Your task to perform on an android device: change your default location settings in chrome Image 0: 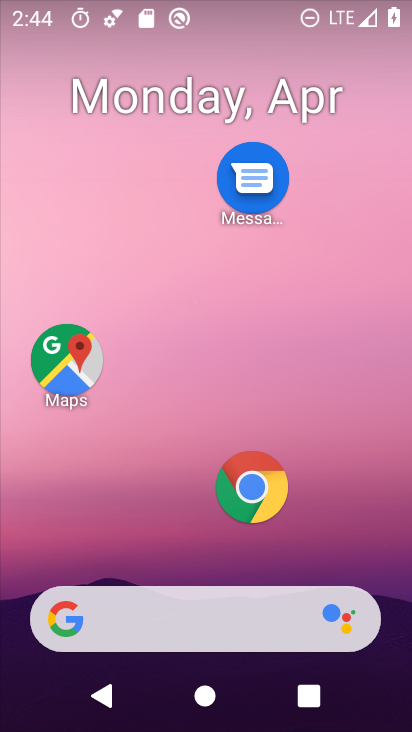
Step 0: drag from (258, 495) to (238, 23)
Your task to perform on an android device: change your default location settings in chrome Image 1: 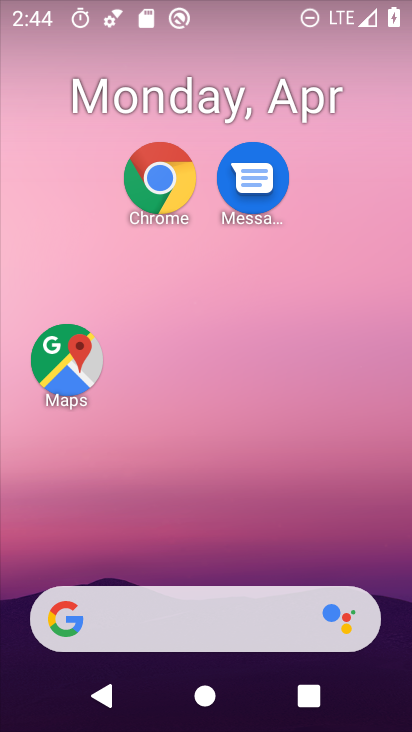
Step 1: drag from (311, 562) to (337, 31)
Your task to perform on an android device: change your default location settings in chrome Image 2: 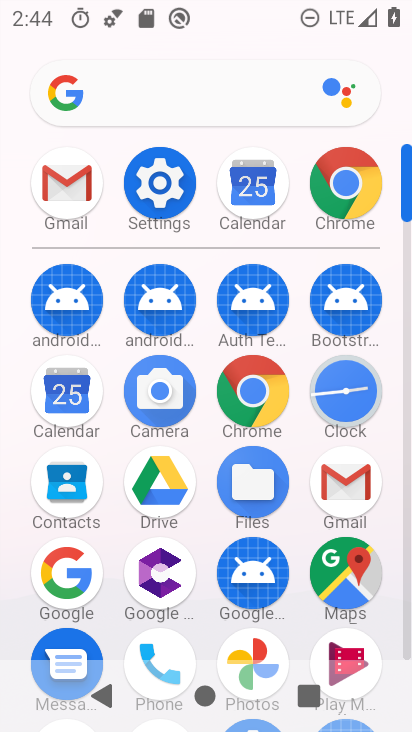
Step 2: click (250, 388)
Your task to perform on an android device: change your default location settings in chrome Image 3: 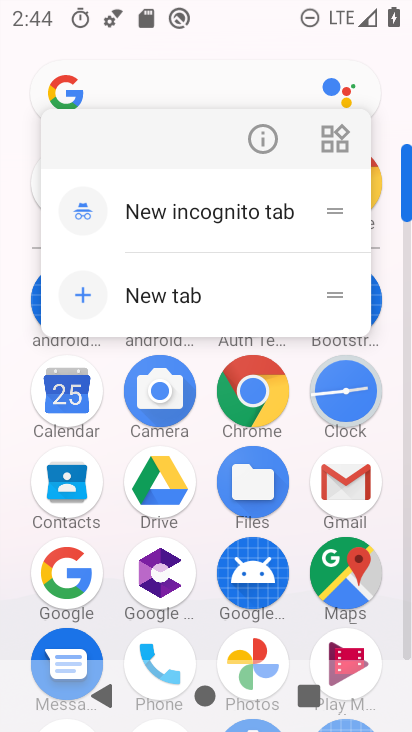
Step 3: click (248, 407)
Your task to perform on an android device: change your default location settings in chrome Image 4: 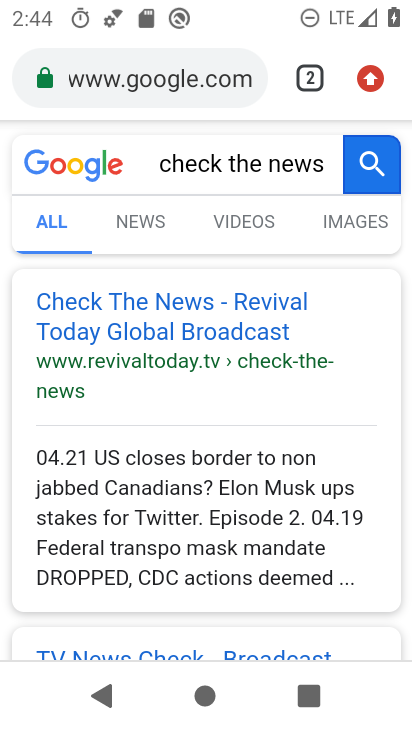
Step 4: drag from (378, 82) to (187, 553)
Your task to perform on an android device: change your default location settings in chrome Image 5: 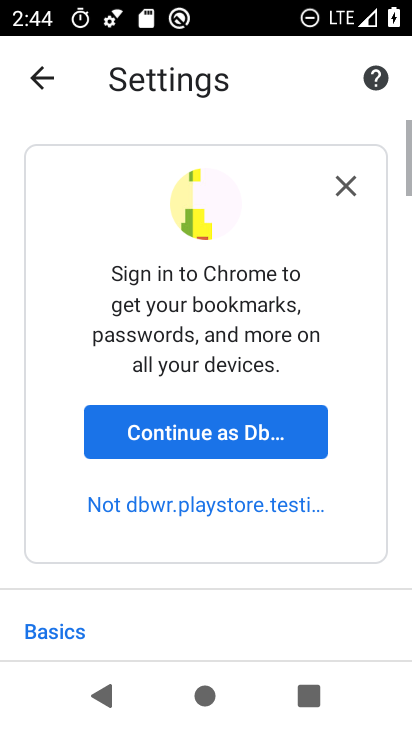
Step 5: drag from (185, 627) to (210, 129)
Your task to perform on an android device: change your default location settings in chrome Image 6: 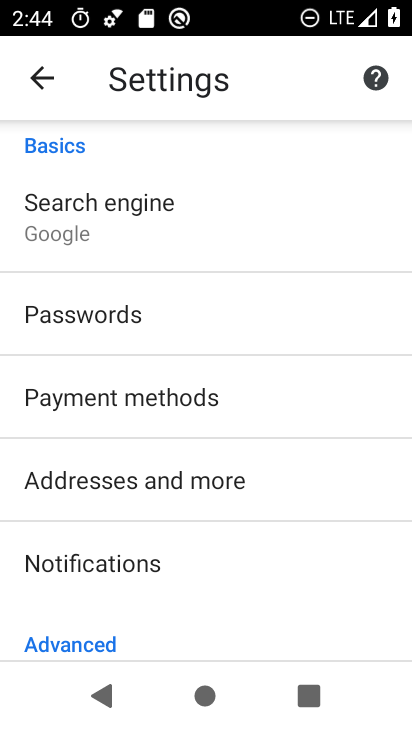
Step 6: drag from (207, 591) to (228, 190)
Your task to perform on an android device: change your default location settings in chrome Image 7: 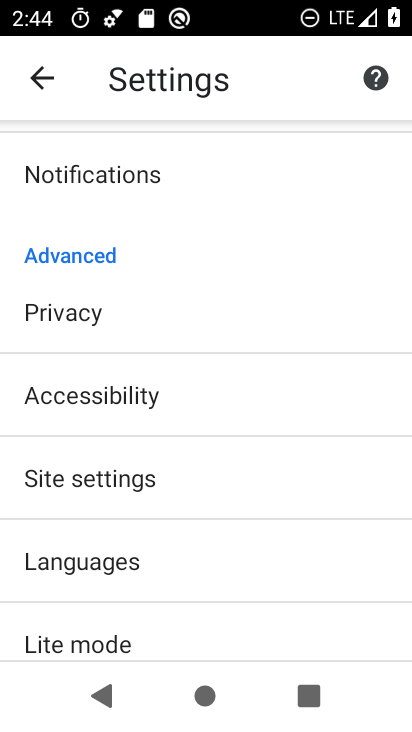
Step 7: click (143, 481)
Your task to perform on an android device: change your default location settings in chrome Image 8: 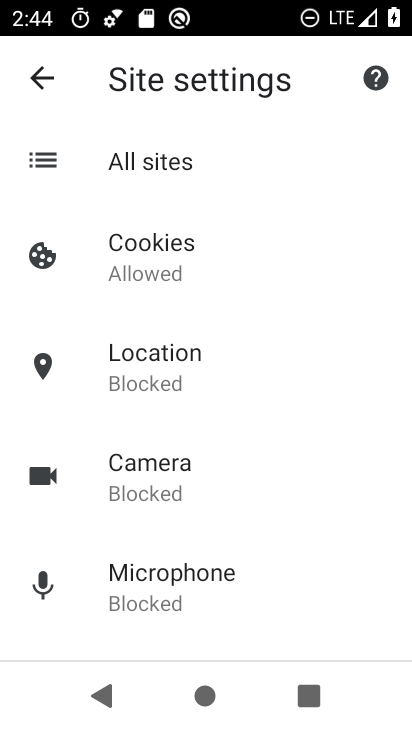
Step 8: click (179, 359)
Your task to perform on an android device: change your default location settings in chrome Image 9: 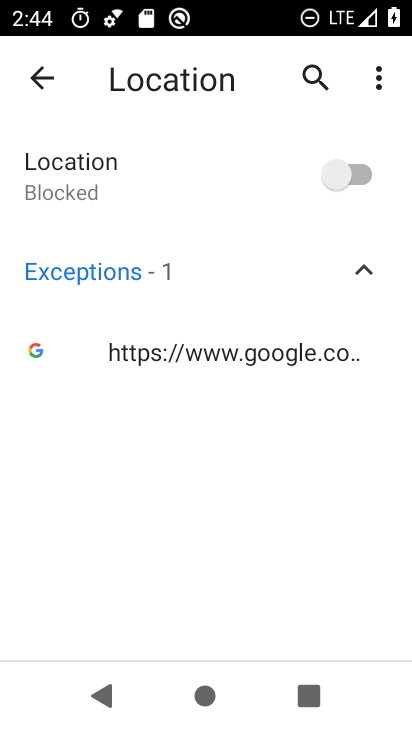
Step 9: click (366, 175)
Your task to perform on an android device: change your default location settings in chrome Image 10: 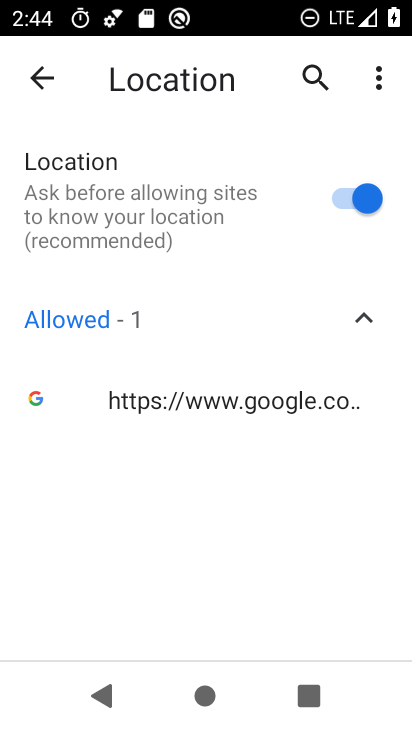
Step 10: task complete